Your task to perform on an android device: Go to CNN.com Image 0: 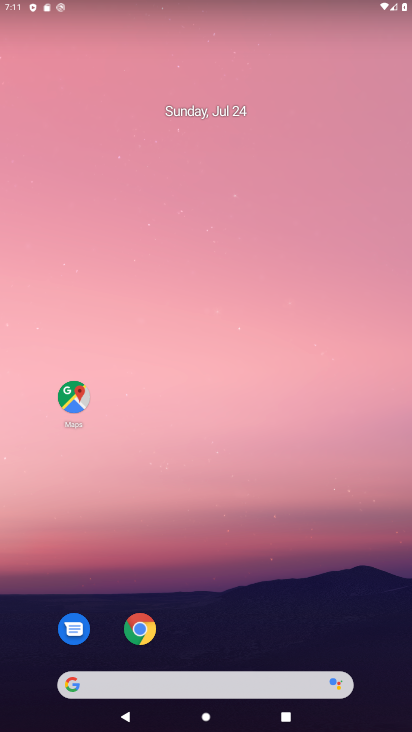
Step 0: drag from (341, 608) to (144, 25)
Your task to perform on an android device: Go to CNN.com Image 1: 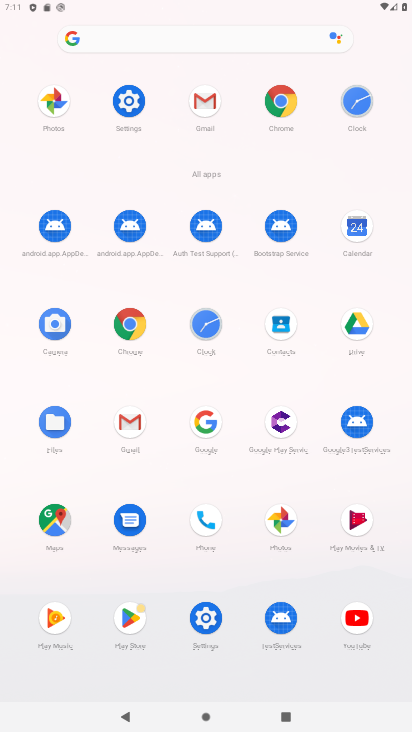
Step 1: click (202, 431)
Your task to perform on an android device: Go to CNN.com Image 2: 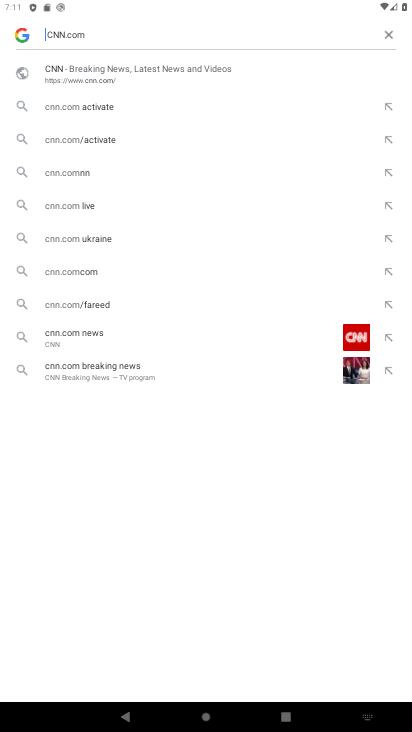
Step 2: click (83, 72)
Your task to perform on an android device: Go to CNN.com Image 3: 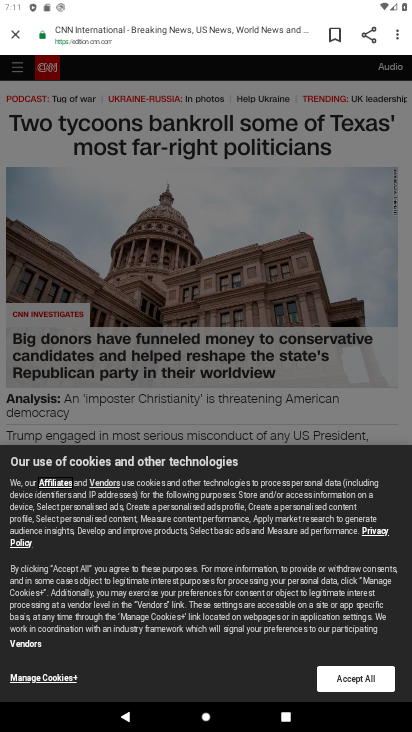
Step 3: task complete